Your task to perform on an android device: find photos in the google photos app Image 0: 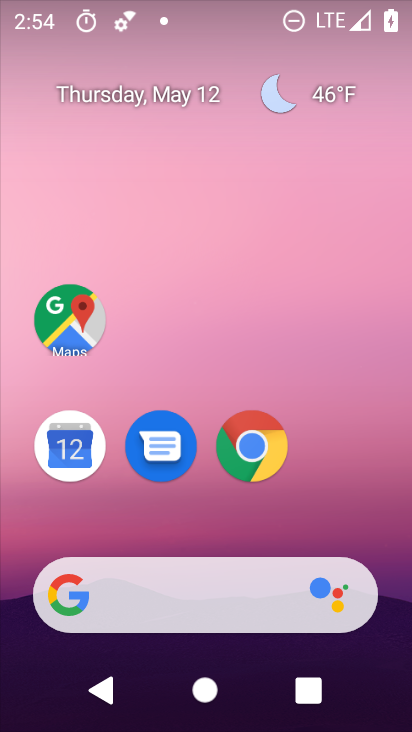
Step 0: drag from (197, 547) to (216, 164)
Your task to perform on an android device: find photos in the google photos app Image 1: 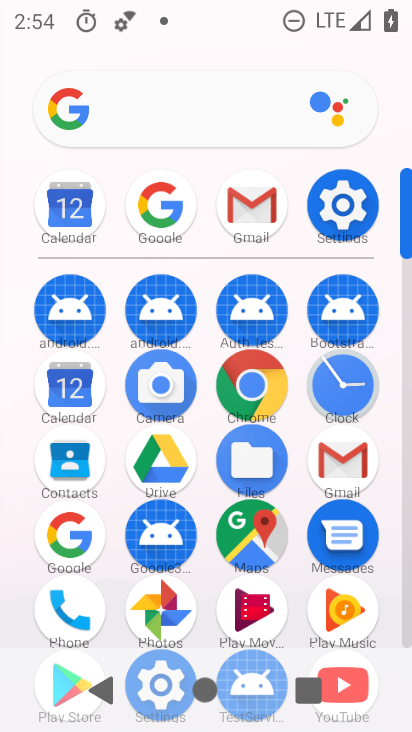
Step 1: click (150, 588)
Your task to perform on an android device: find photos in the google photos app Image 2: 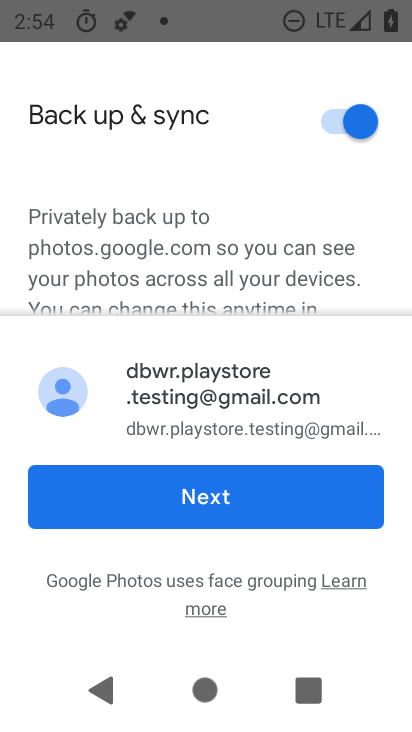
Step 2: click (261, 508)
Your task to perform on an android device: find photos in the google photos app Image 3: 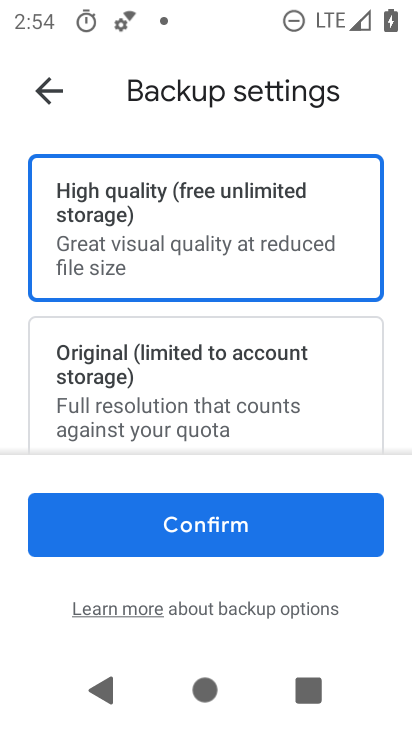
Step 3: click (272, 506)
Your task to perform on an android device: find photos in the google photos app Image 4: 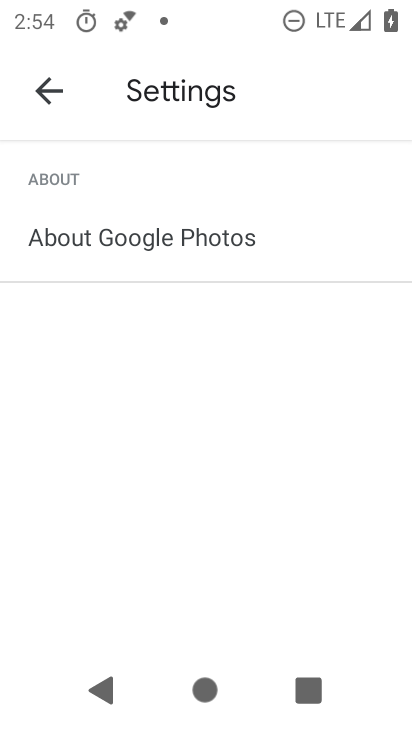
Step 4: click (44, 84)
Your task to perform on an android device: find photos in the google photos app Image 5: 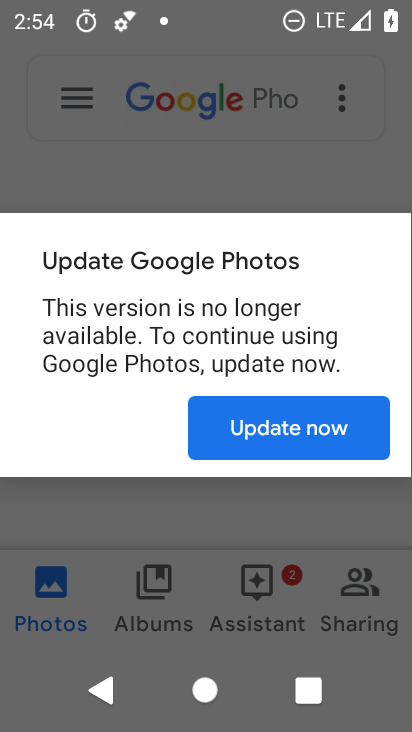
Step 5: click (216, 437)
Your task to perform on an android device: find photos in the google photos app Image 6: 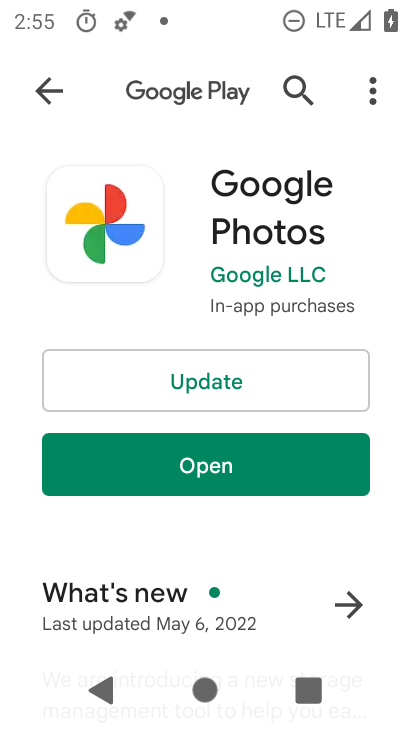
Step 6: click (188, 466)
Your task to perform on an android device: find photos in the google photos app Image 7: 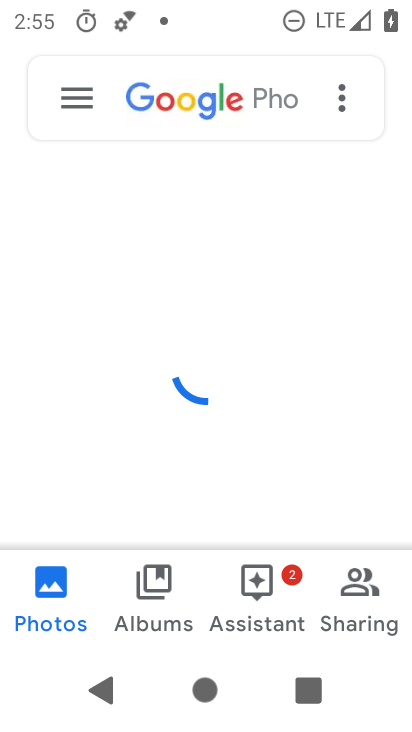
Step 7: click (219, 88)
Your task to perform on an android device: find photos in the google photos app Image 8: 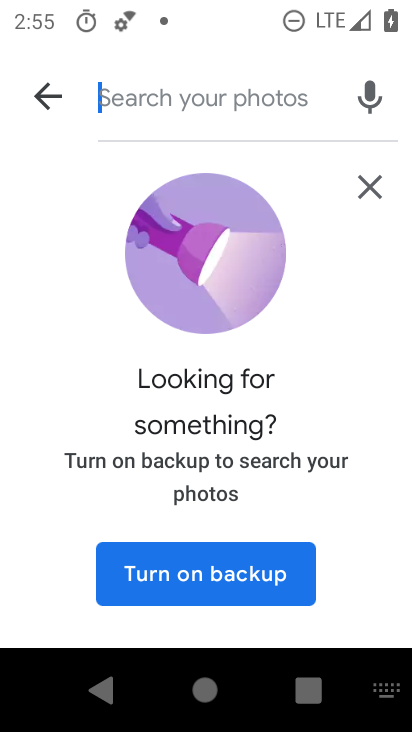
Step 8: type "aa"
Your task to perform on an android device: find photos in the google photos app Image 9: 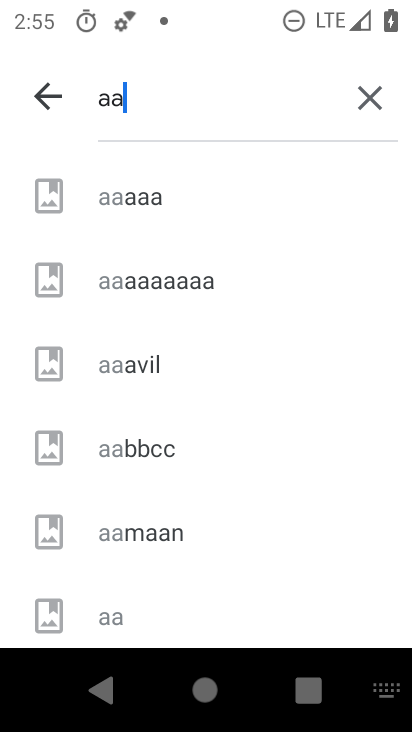
Step 9: click (174, 195)
Your task to perform on an android device: find photos in the google photos app Image 10: 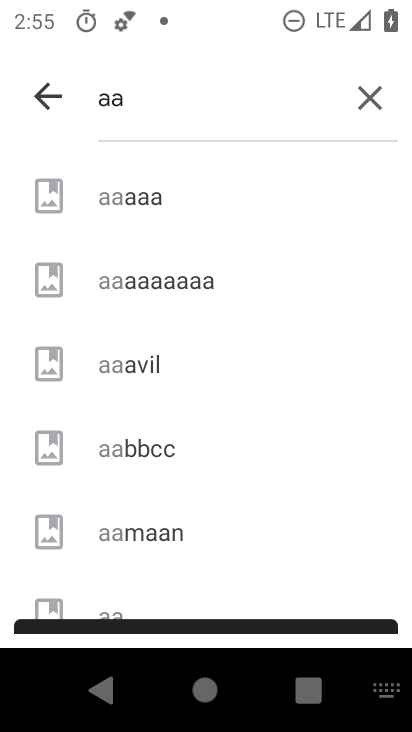
Step 10: click (130, 195)
Your task to perform on an android device: find photos in the google photos app Image 11: 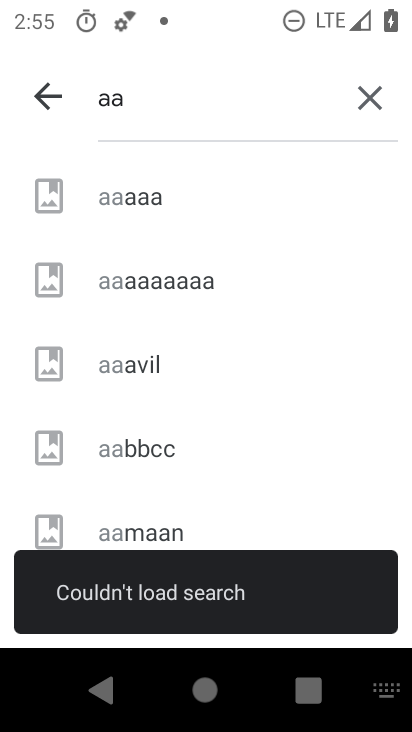
Step 11: click (172, 282)
Your task to perform on an android device: find photos in the google photos app Image 12: 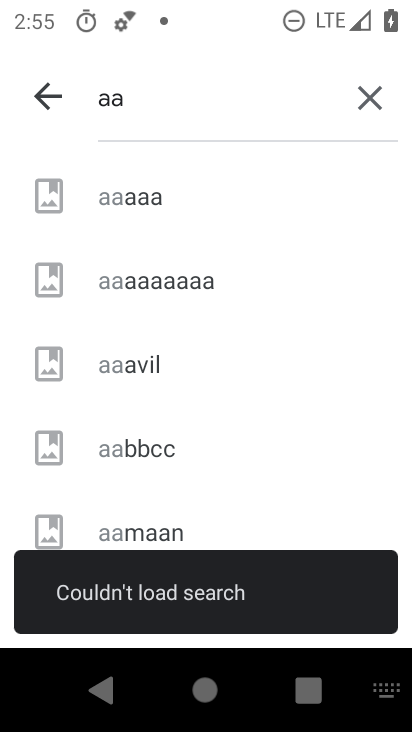
Step 12: click (162, 369)
Your task to perform on an android device: find photos in the google photos app Image 13: 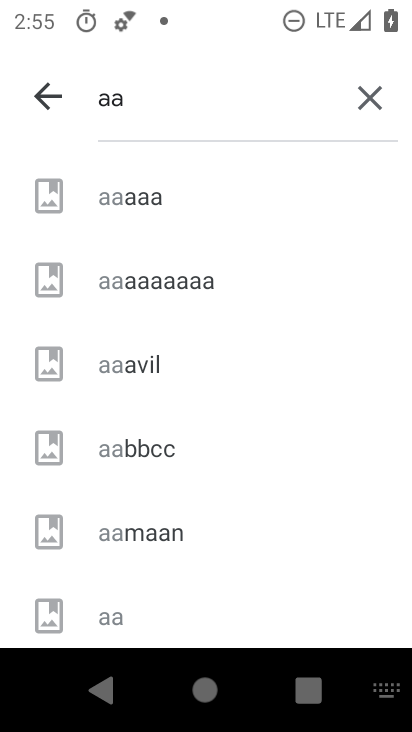
Step 13: click (162, 369)
Your task to perform on an android device: find photos in the google photos app Image 14: 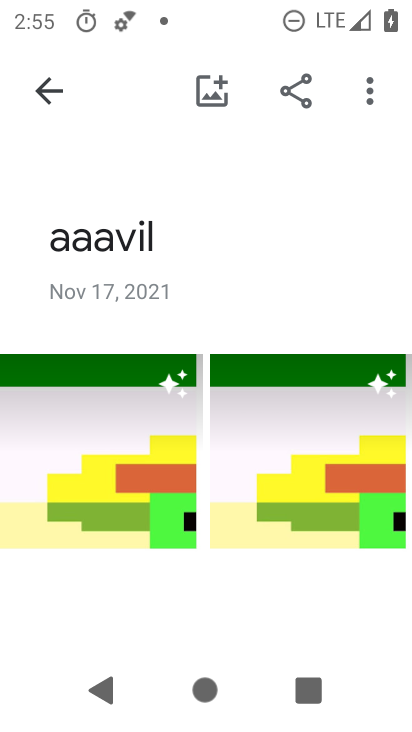
Step 14: task complete